Your task to perform on an android device: What's the weather? Image 0: 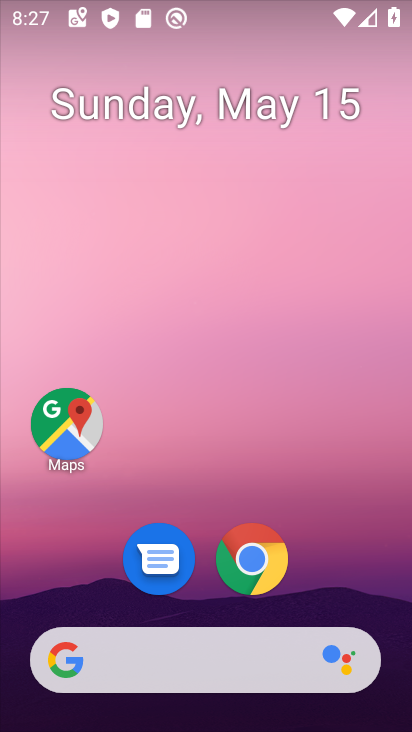
Step 0: click (218, 664)
Your task to perform on an android device: What's the weather? Image 1: 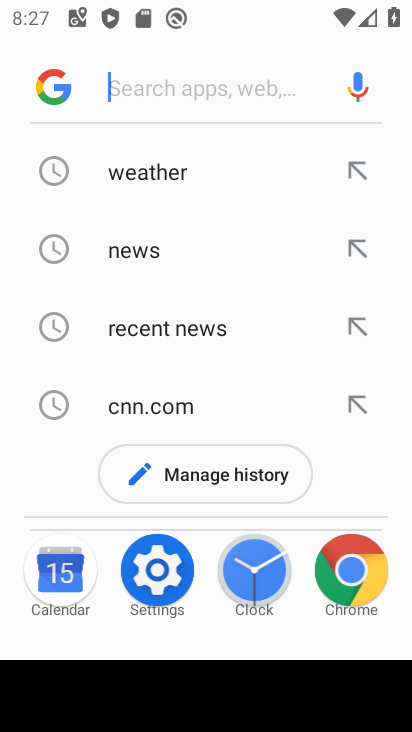
Step 1: click (218, 197)
Your task to perform on an android device: What's the weather? Image 2: 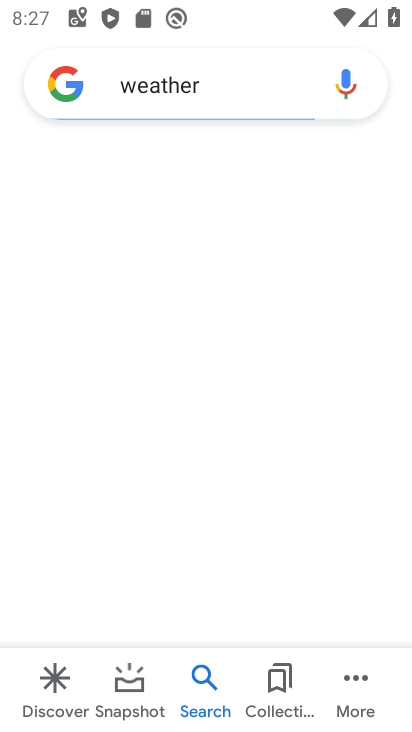
Step 2: task complete